Your task to perform on an android device: all mails in gmail Image 0: 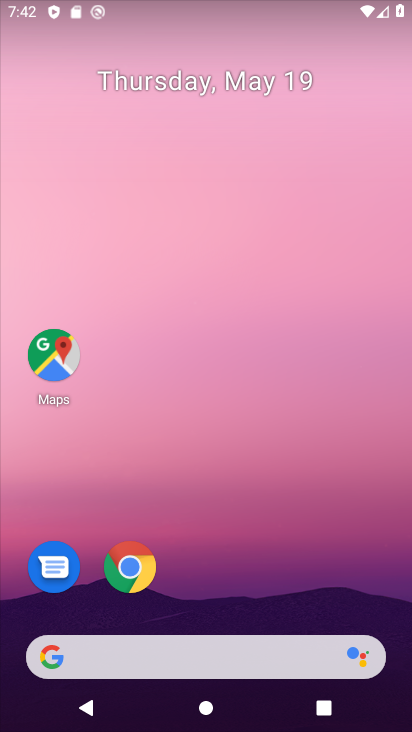
Step 0: drag from (169, 620) to (3, 447)
Your task to perform on an android device: all mails in gmail Image 1: 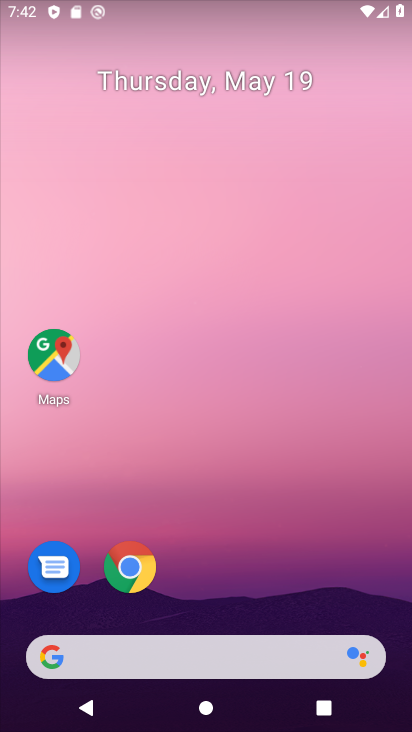
Step 1: drag from (200, 610) to (203, 33)
Your task to perform on an android device: all mails in gmail Image 2: 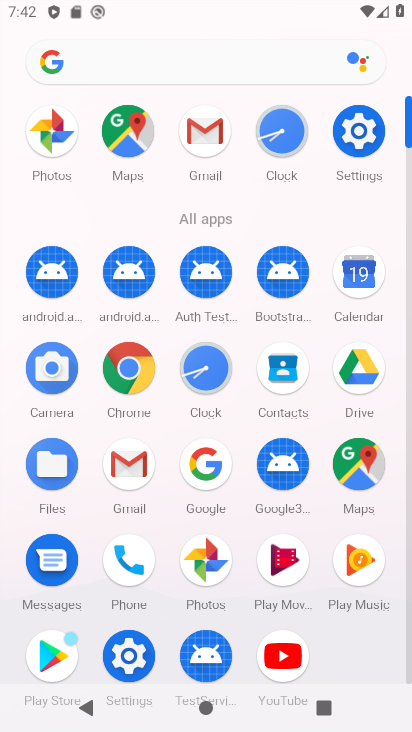
Step 2: click (126, 479)
Your task to perform on an android device: all mails in gmail Image 3: 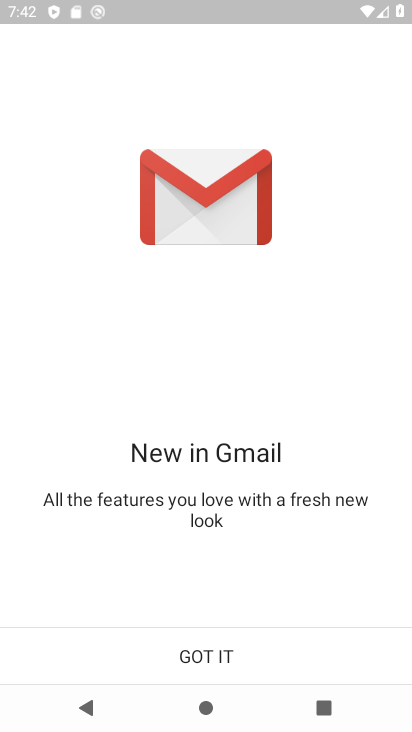
Step 3: click (210, 662)
Your task to perform on an android device: all mails in gmail Image 4: 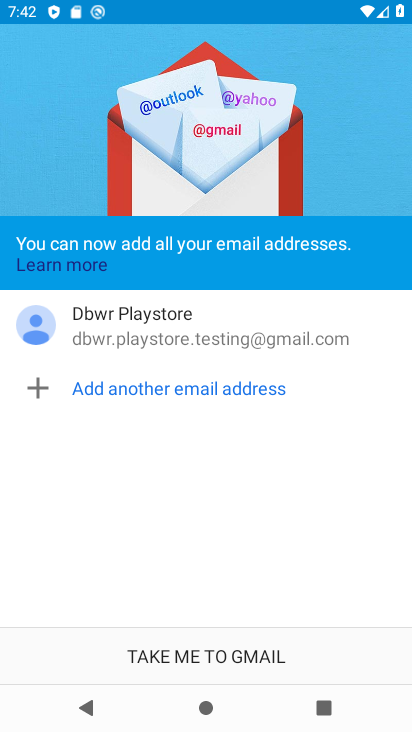
Step 4: click (223, 647)
Your task to perform on an android device: all mails in gmail Image 5: 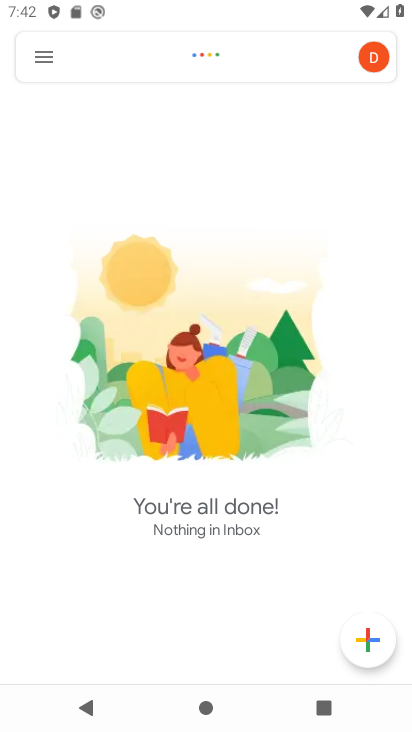
Step 5: click (41, 51)
Your task to perform on an android device: all mails in gmail Image 6: 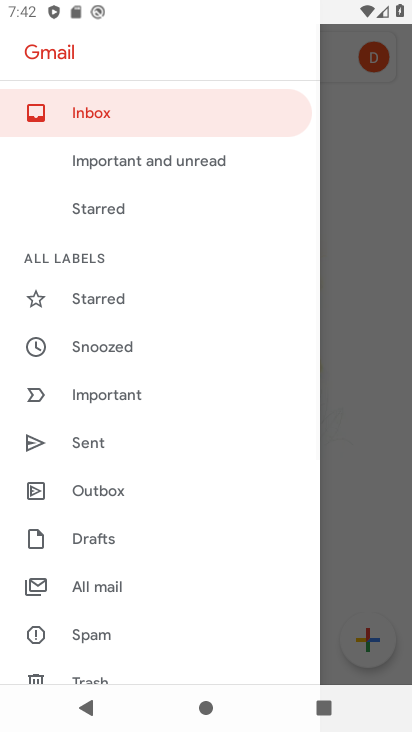
Step 6: click (115, 583)
Your task to perform on an android device: all mails in gmail Image 7: 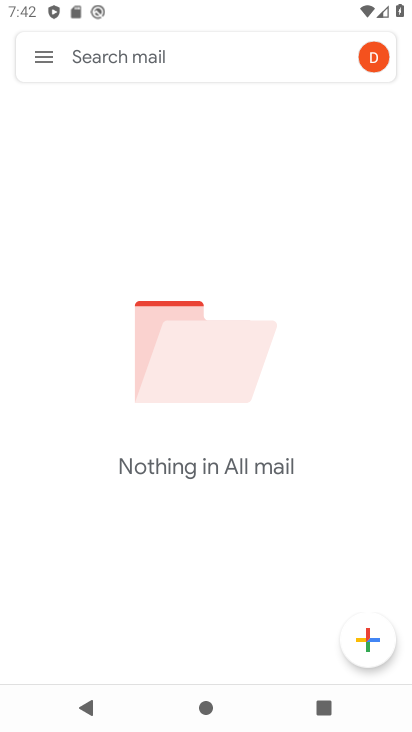
Step 7: task complete